Your task to perform on an android device: find which apps use the phone's location Image 0: 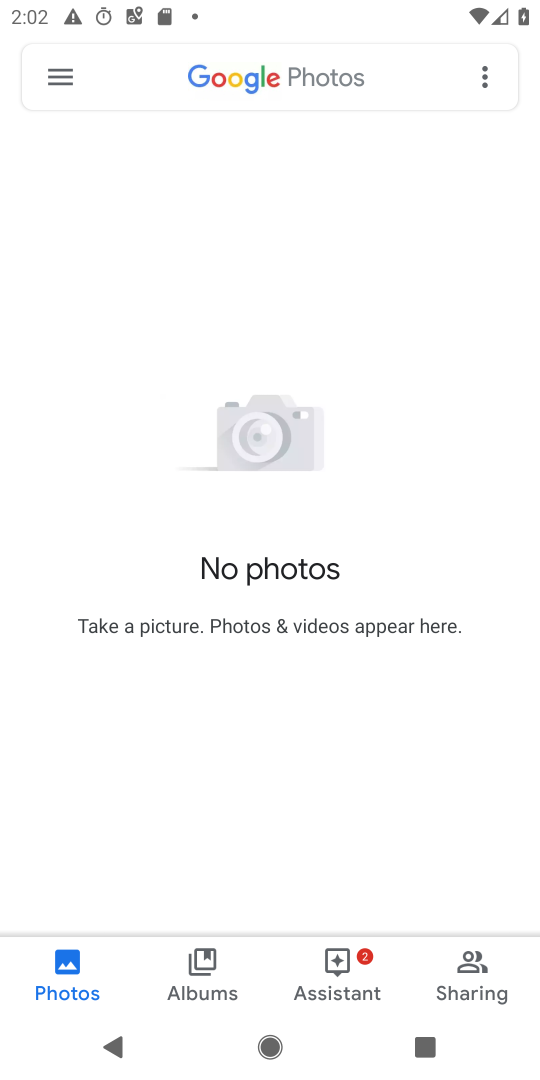
Step 0: press home button
Your task to perform on an android device: find which apps use the phone's location Image 1: 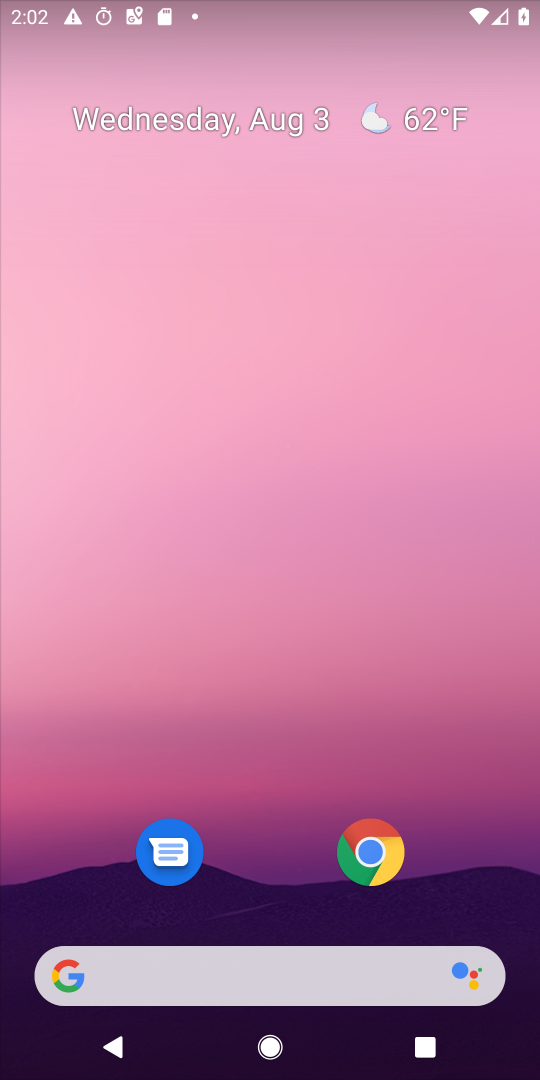
Step 1: drag from (512, 910) to (283, 24)
Your task to perform on an android device: find which apps use the phone's location Image 2: 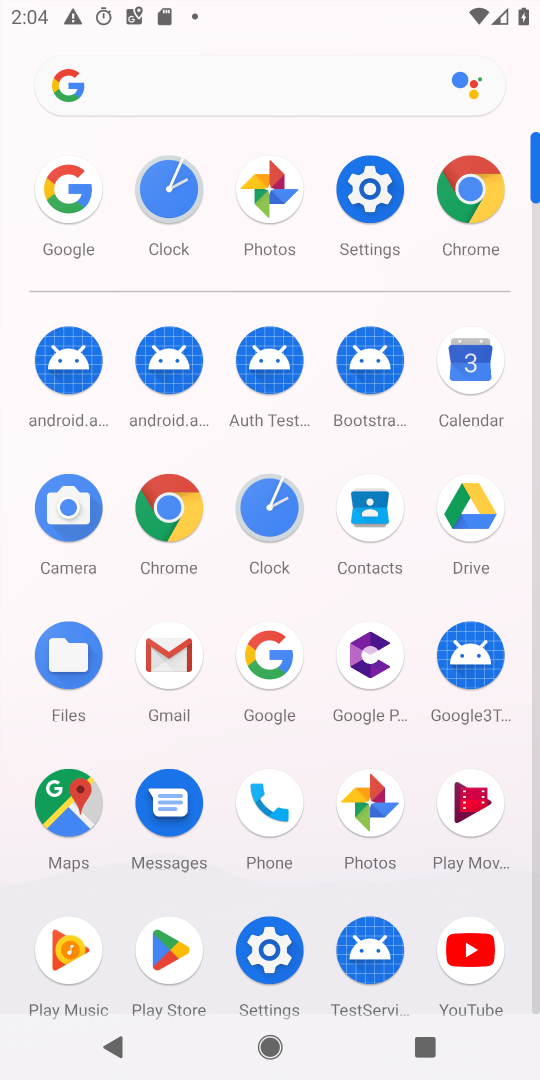
Step 2: click (266, 934)
Your task to perform on an android device: find which apps use the phone's location Image 3: 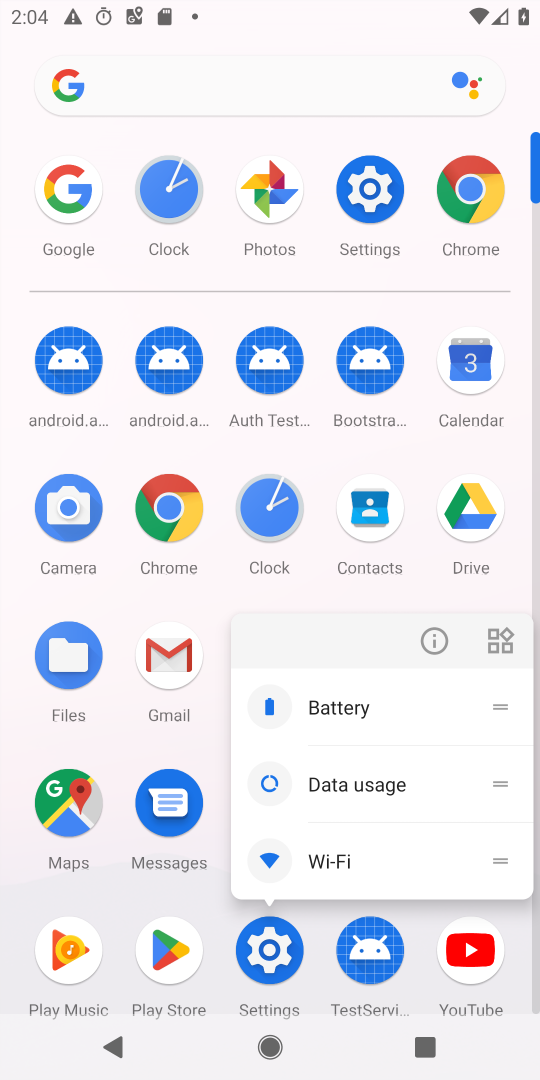
Step 3: click (266, 934)
Your task to perform on an android device: find which apps use the phone's location Image 4: 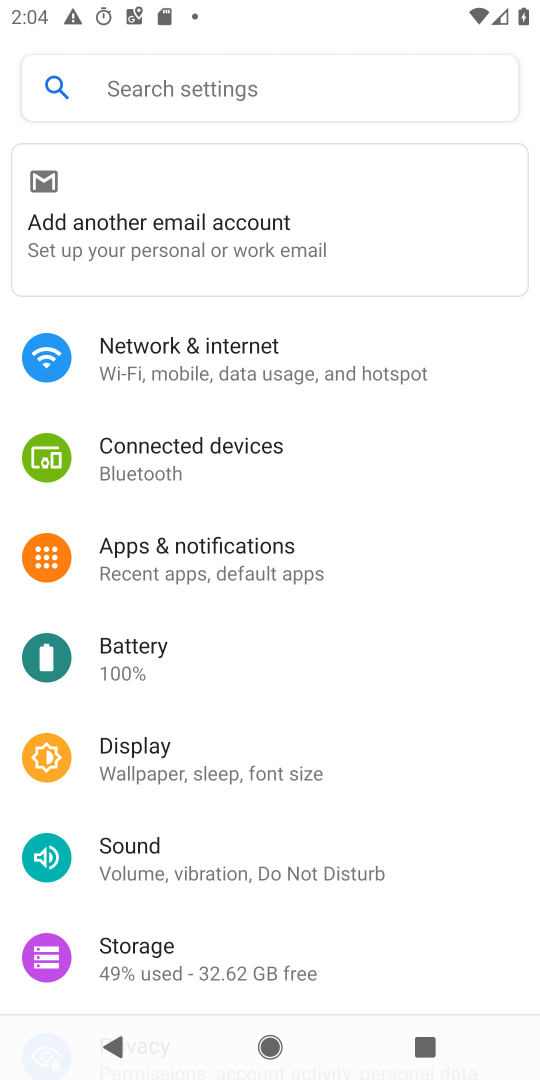
Step 4: drag from (215, 957) to (180, 510)
Your task to perform on an android device: find which apps use the phone's location Image 5: 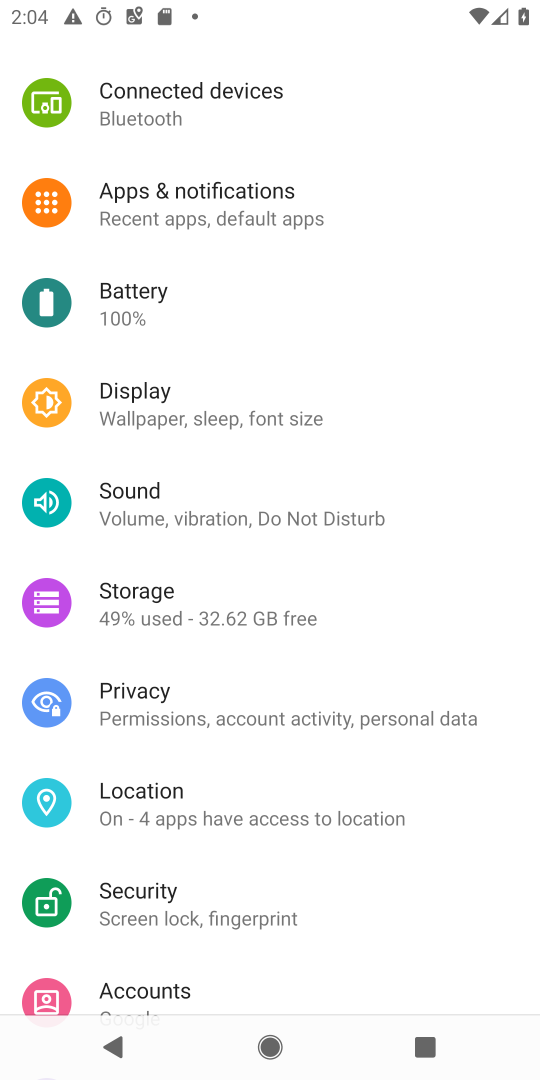
Step 5: click (138, 798)
Your task to perform on an android device: find which apps use the phone's location Image 6: 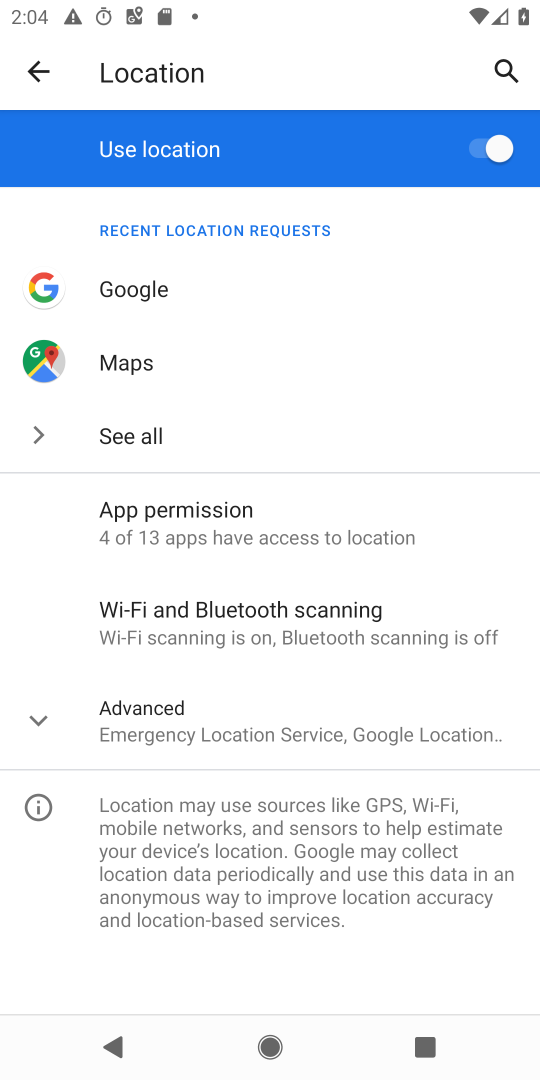
Step 6: click (162, 508)
Your task to perform on an android device: find which apps use the phone's location Image 7: 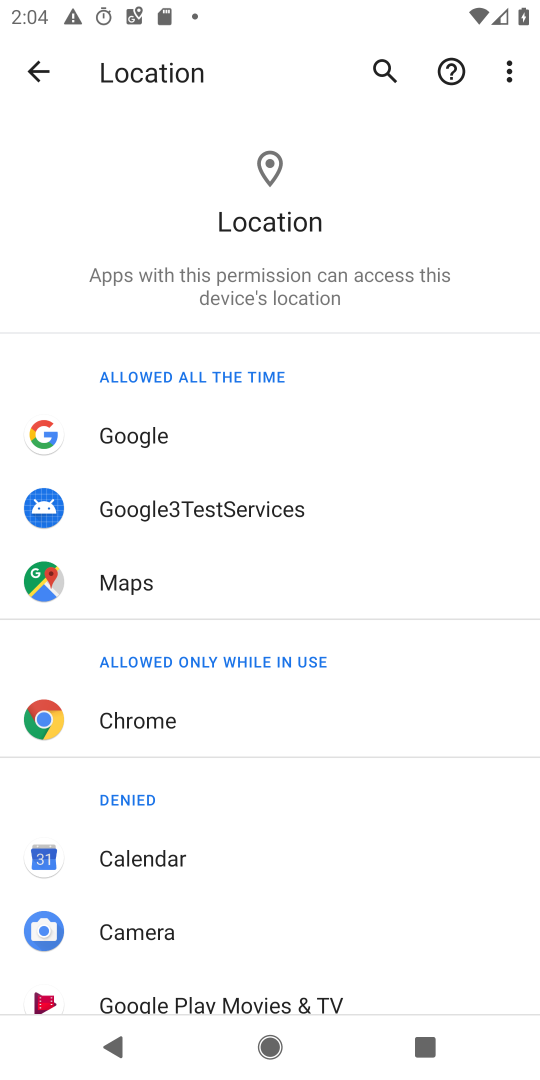
Step 7: drag from (177, 936) to (138, 514)
Your task to perform on an android device: find which apps use the phone's location Image 8: 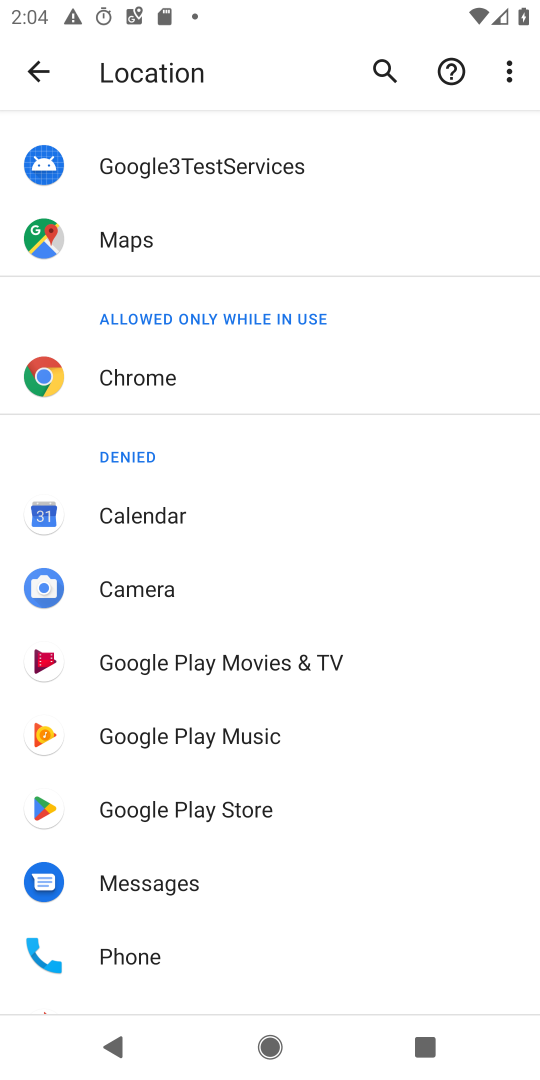
Step 8: click (179, 969)
Your task to perform on an android device: find which apps use the phone's location Image 9: 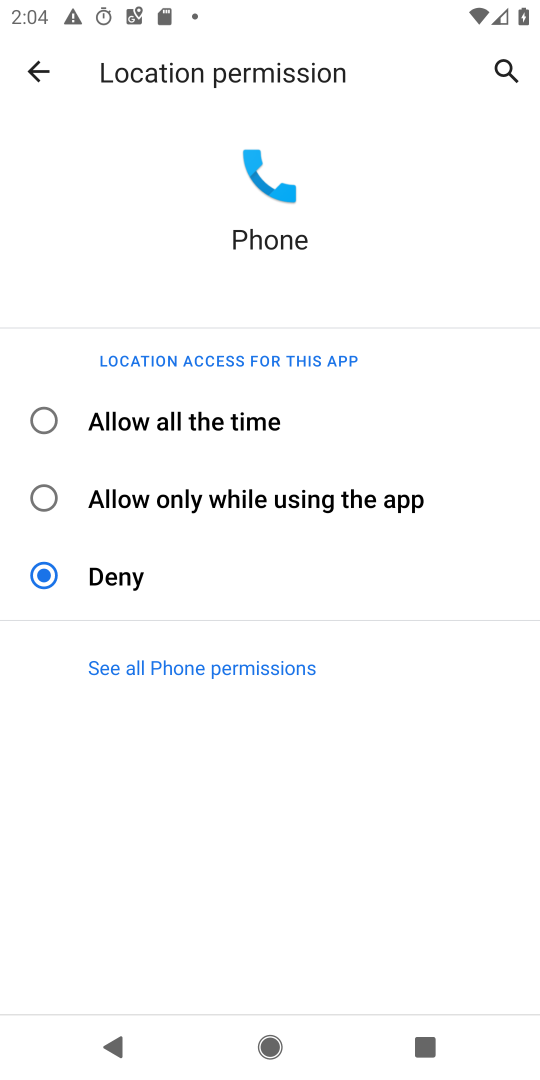
Step 9: click (50, 421)
Your task to perform on an android device: find which apps use the phone's location Image 10: 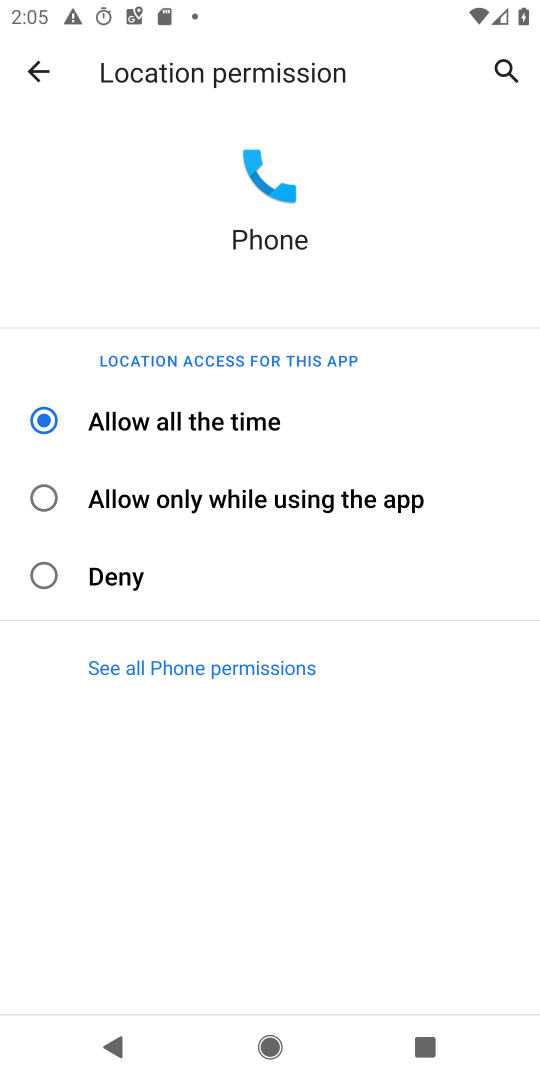
Step 10: task complete